Your task to perform on an android device: turn off location history Image 0: 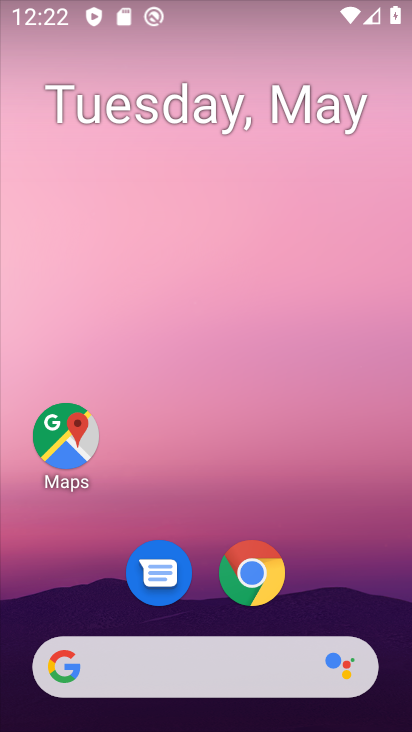
Step 0: drag from (321, 508) to (293, 127)
Your task to perform on an android device: turn off location history Image 1: 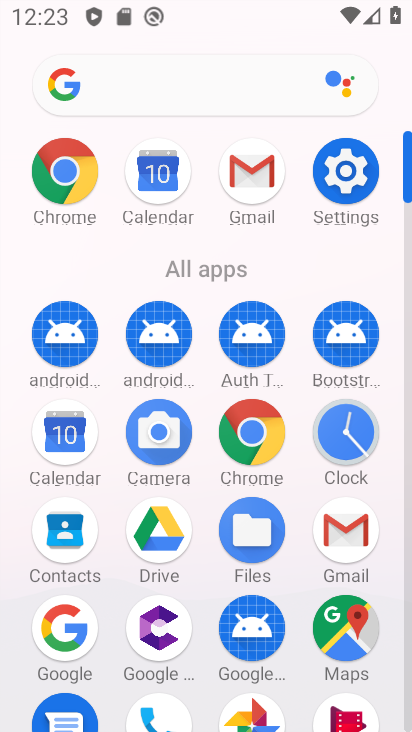
Step 1: click (321, 177)
Your task to perform on an android device: turn off location history Image 2: 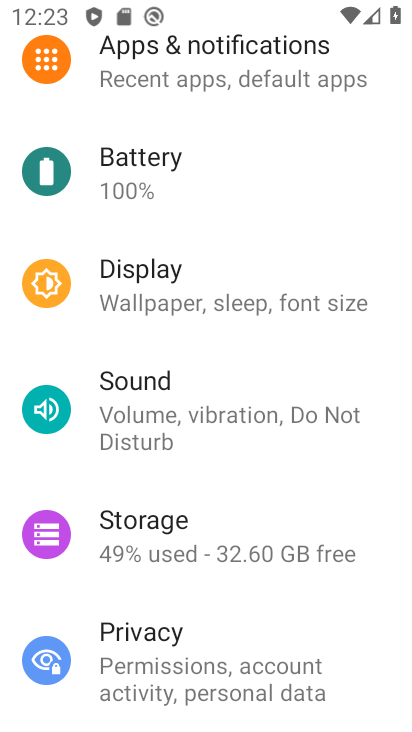
Step 2: drag from (211, 551) to (215, 117)
Your task to perform on an android device: turn off location history Image 3: 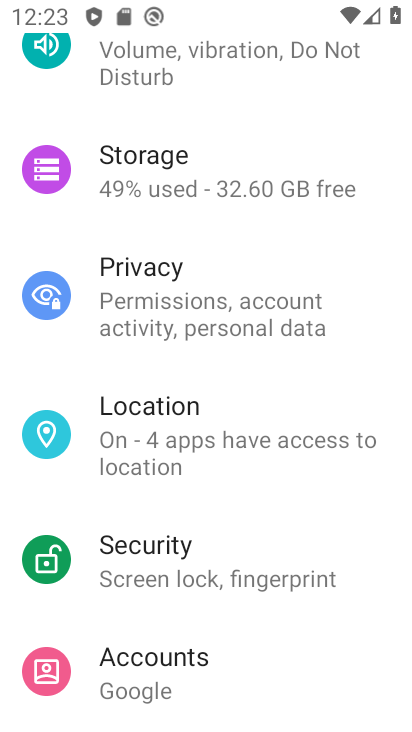
Step 3: click (148, 401)
Your task to perform on an android device: turn off location history Image 4: 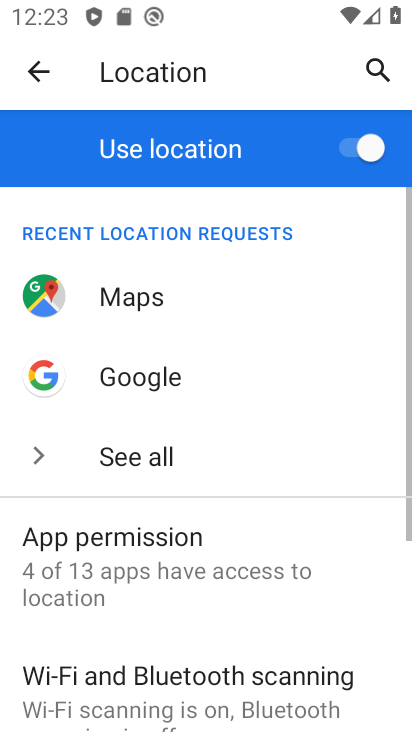
Step 4: drag from (195, 621) to (167, 212)
Your task to perform on an android device: turn off location history Image 5: 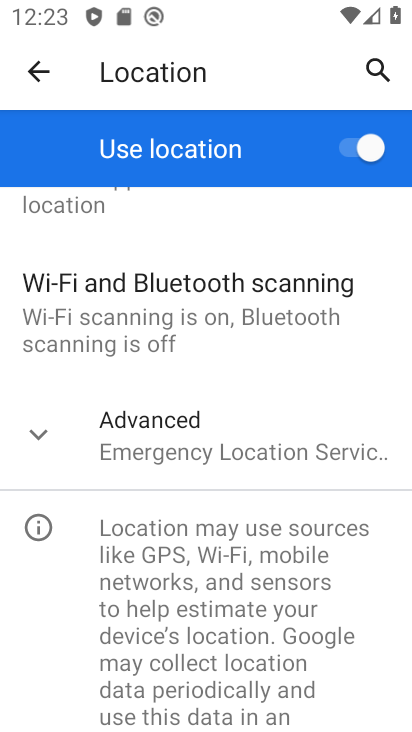
Step 5: click (104, 424)
Your task to perform on an android device: turn off location history Image 6: 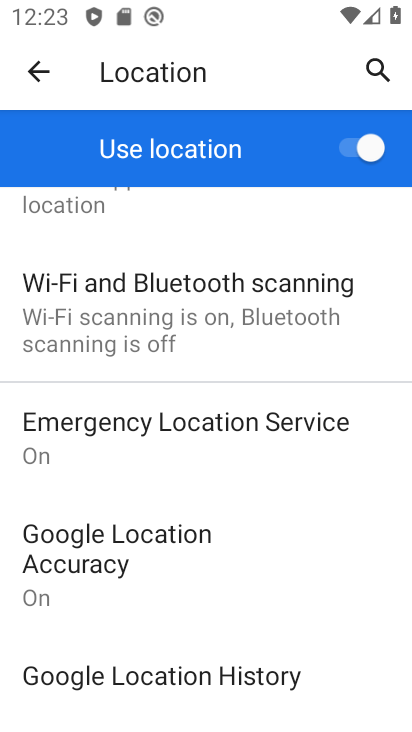
Step 6: drag from (83, 610) to (74, 286)
Your task to perform on an android device: turn off location history Image 7: 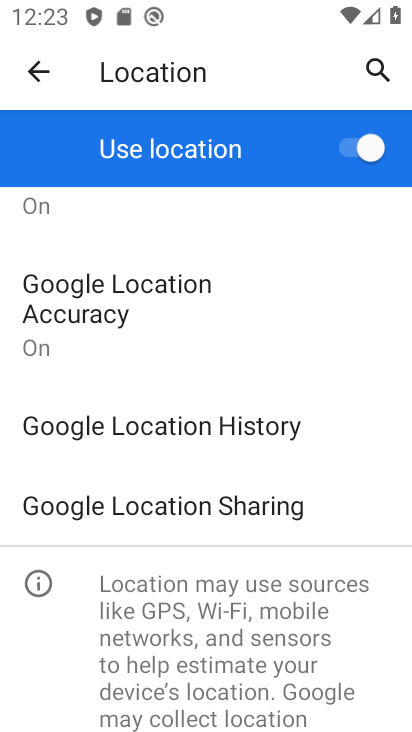
Step 7: drag from (88, 579) to (120, 289)
Your task to perform on an android device: turn off location history Image 8: 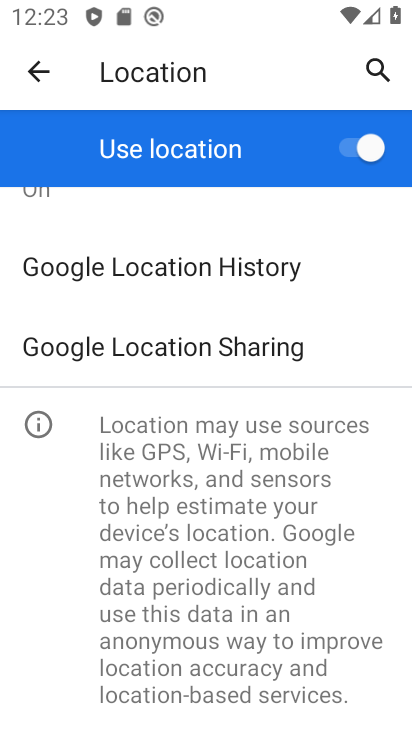
Step 8: click (120, 289)
Your task to perform on an android device: turn off location history Image 9: 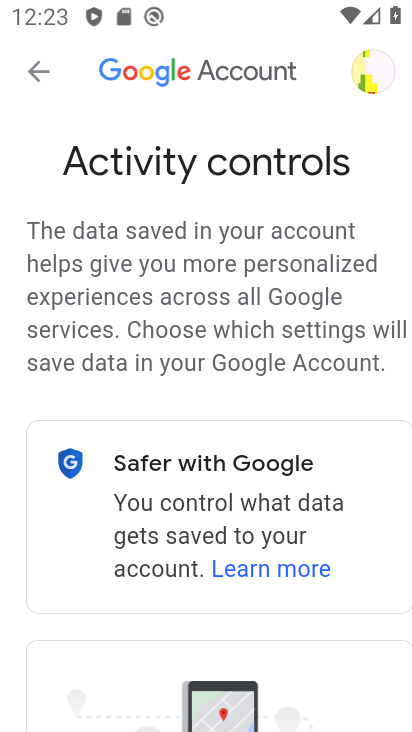
Step 9: drag from (152, 442) to (144, 134)
Your task to perform on an android device: turn off location history Image 10: 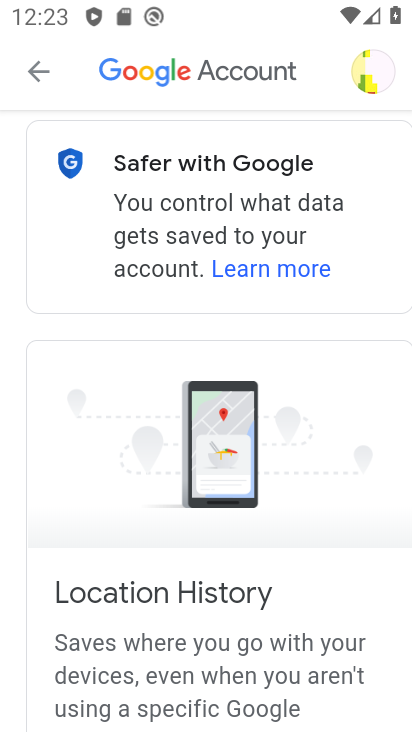
Step 10: drag from (52, 572) to (69, 171)
Your task to perform on an android device: turn off location history Image 11: 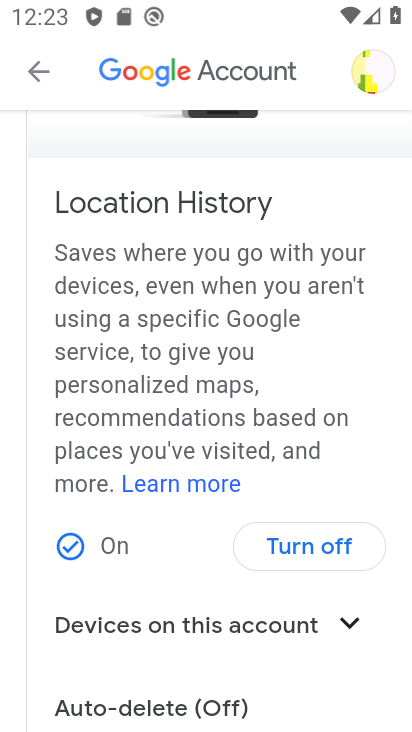
Step 11: drag from (34, 514) to (29, 259)
Your task to perform on an android device: turn off location history Image 12: 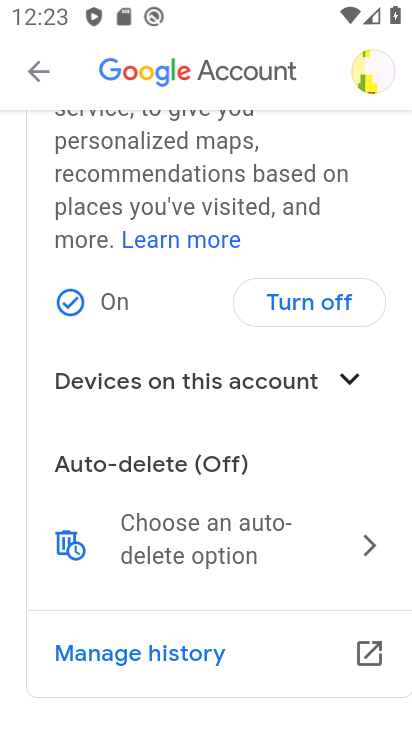
Step 12: click (290, 313)
Your task to perform on an android device: turn off location history Image 13: 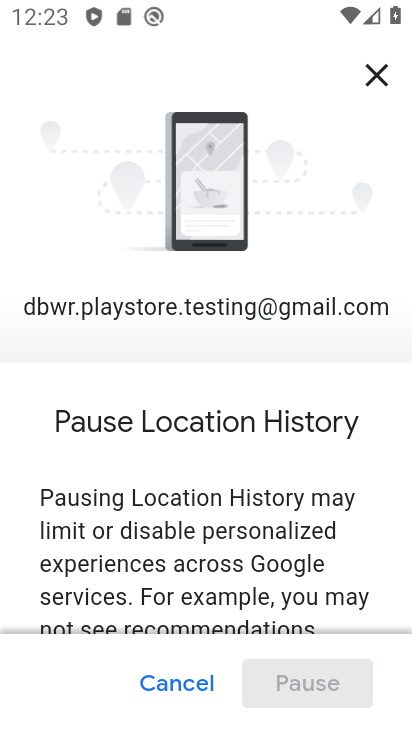
Step 13: drag from (268, 583) to (215, 187)
Your task to perform on an android device: turn off location history Image 14: 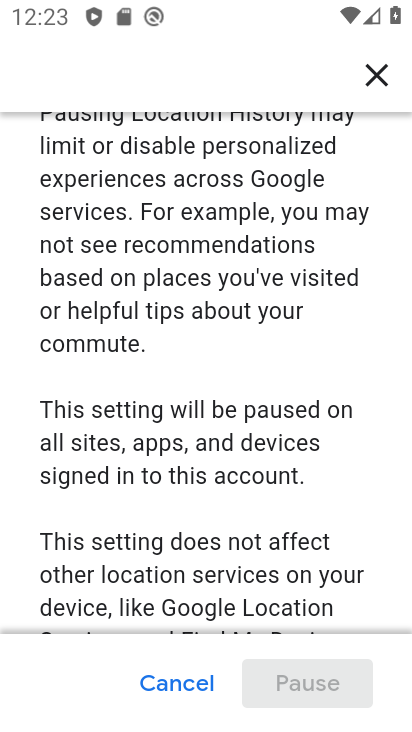
Step 14: drag from (163, 579) to (183, 207)
Your task to perform on an android device: turn off location history Image 15: 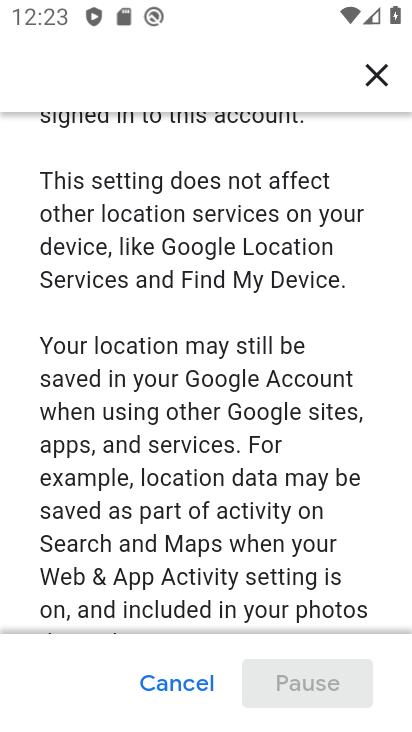
Step 15: drag from (175, 563) to (185, 309)
Your task to perform on an android device: turn off location history Image 16: 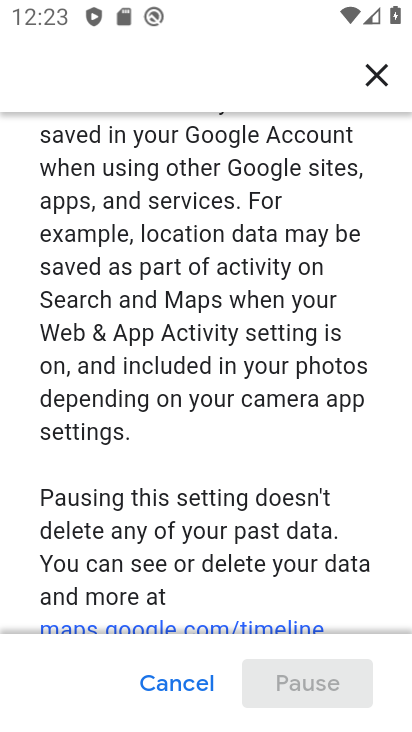
Step 16: drag from (189, 561) to (215, 199)
Your task to perform on an android device: turn off location history Image 17: 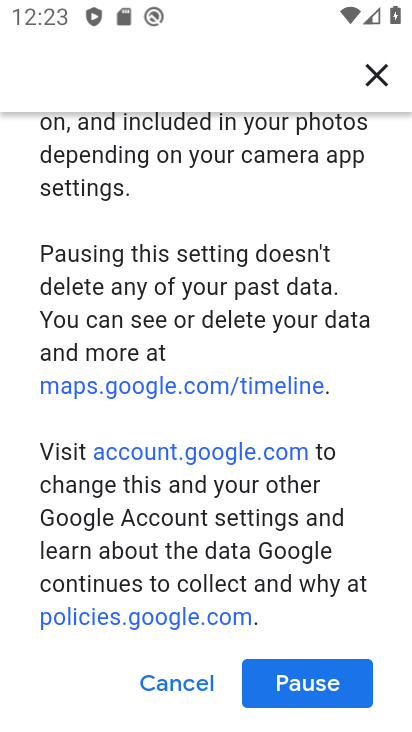
Step 17: click (293, 679)
Your task to perform on an android device: turn off location history Image 18: 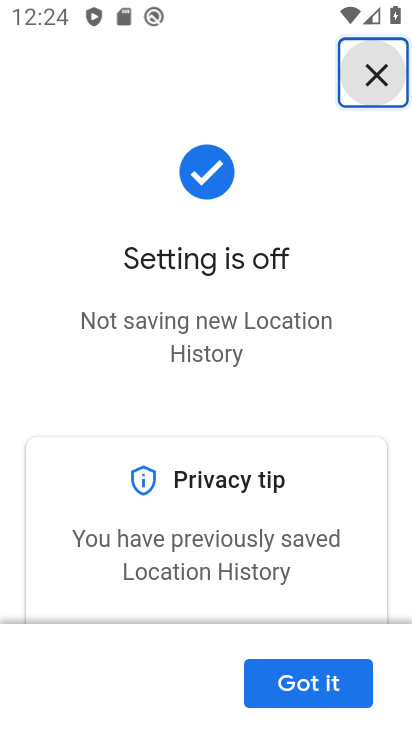
Step 18: click (293, 679)
Your task to perform on an android device: turn off location history Image 19: 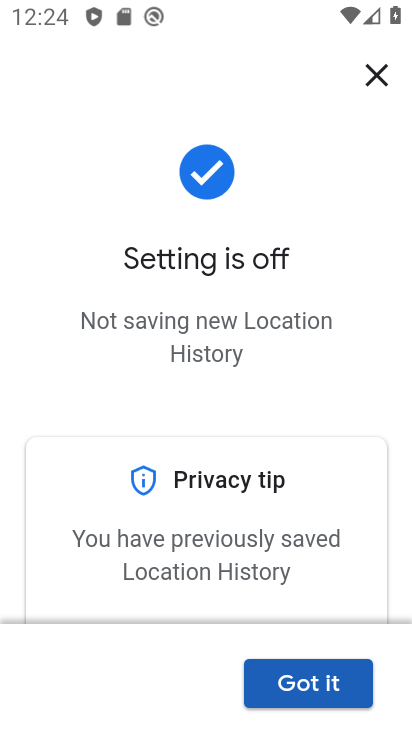
Step 19: task complete